Your task to perform on an android device: Go to Google maps Image 0: 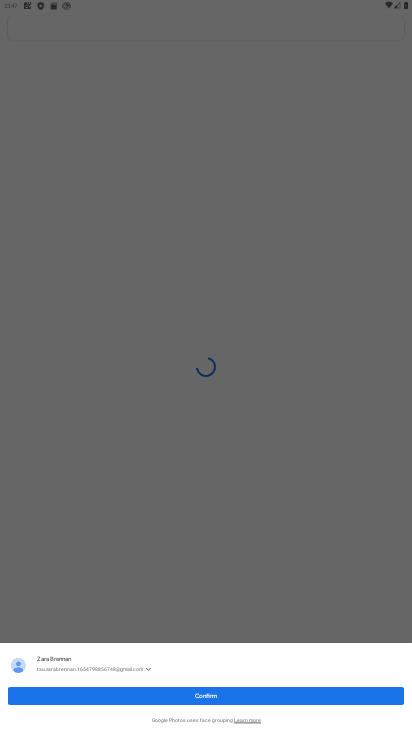
Step 0: press home button
Your task to perform on an android device: Go to Google maps Image 1: 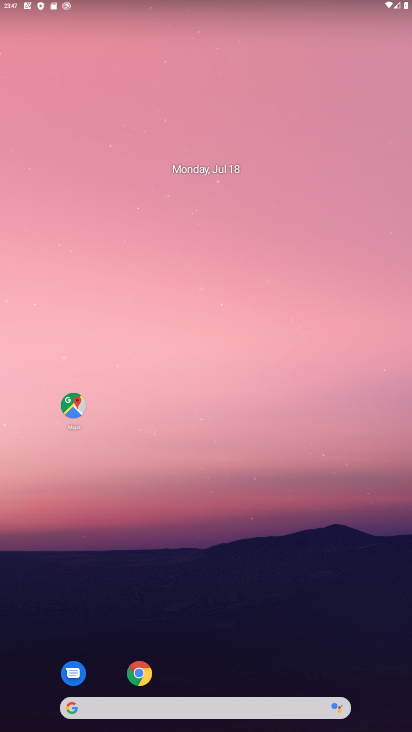
Step 1: click (79, 415)
Your task to perform on an android device: Go to Google maps Image 2: 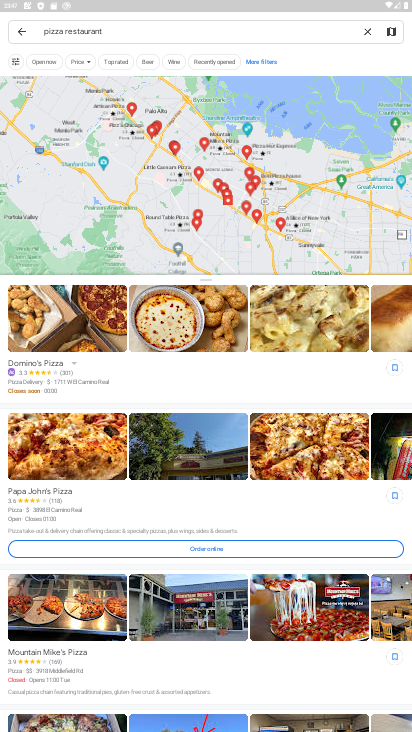
Step 2: task complete